Your task to perform on an android device: Open Youtube and go to the subscriptions tab Image 0: 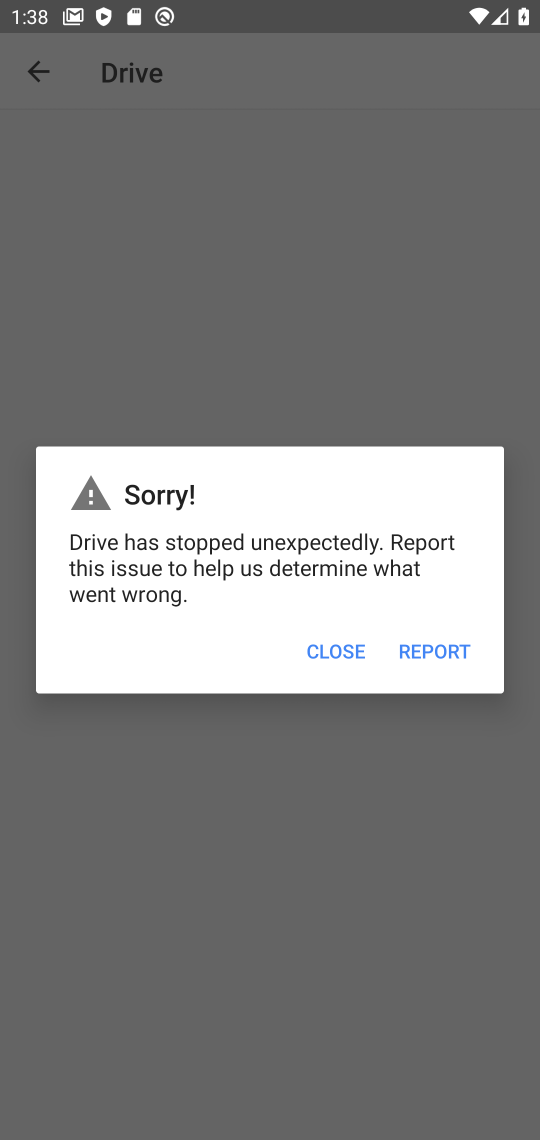
Step 0: press home button
Your task to perform on an android device: Open Youtube and go to the subscriptions tab Image 1: 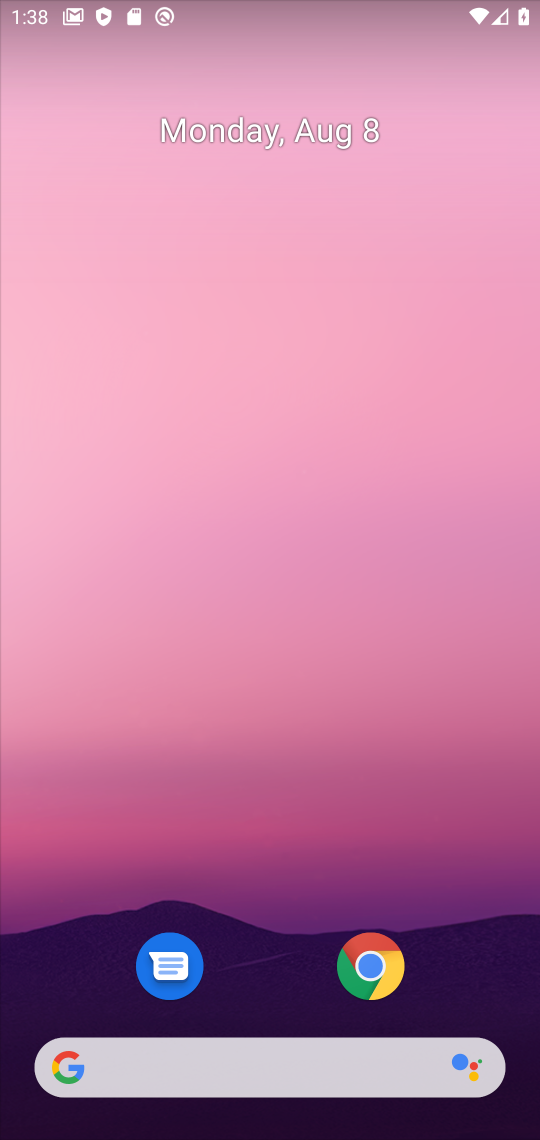
Step 1: drag from (463, 934) to (308, 147)
Your task to perform on an android device: Open Youtube and go to the subscriptions tab Image 2: 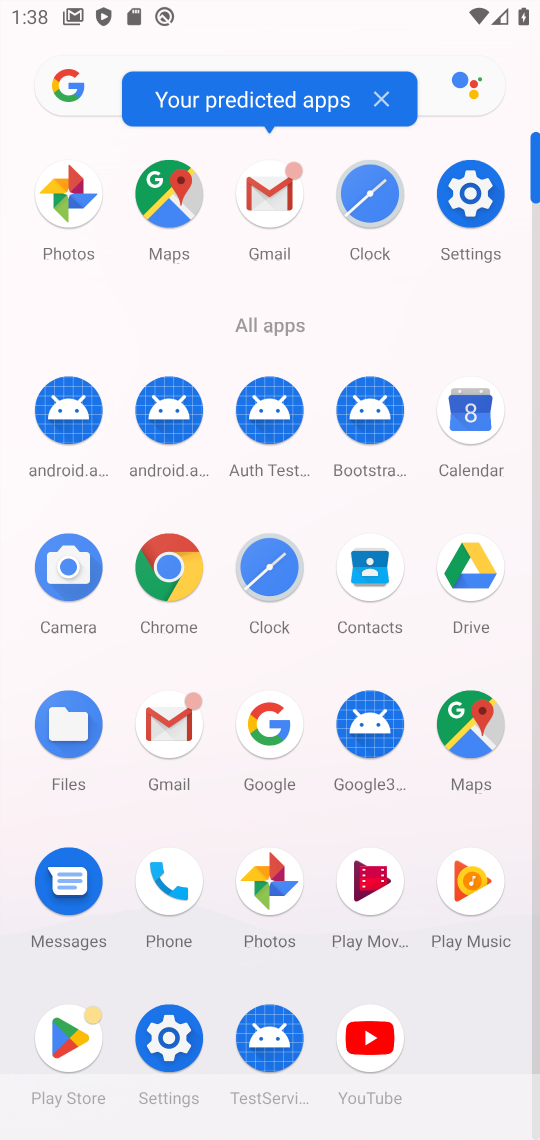
Step 2: click (361, 1035)
Your task to perform on an android device: Open Youtube and go to the subscriptions tab Image 3: 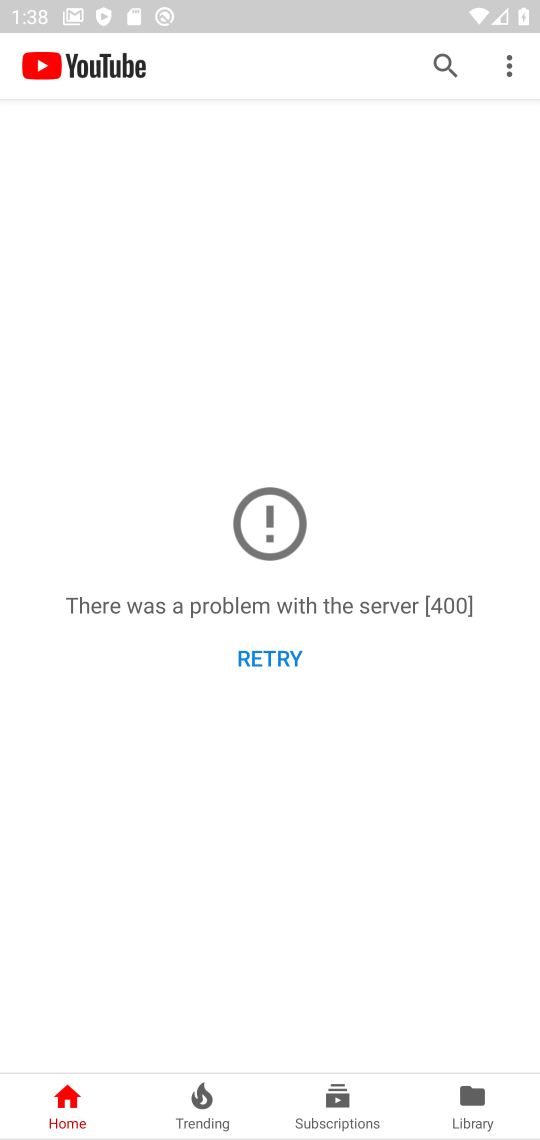
Step 3: click (345, 1096)
Your task to perform on an android device: Open Youtube and go to the subscriptions tab Image 4: 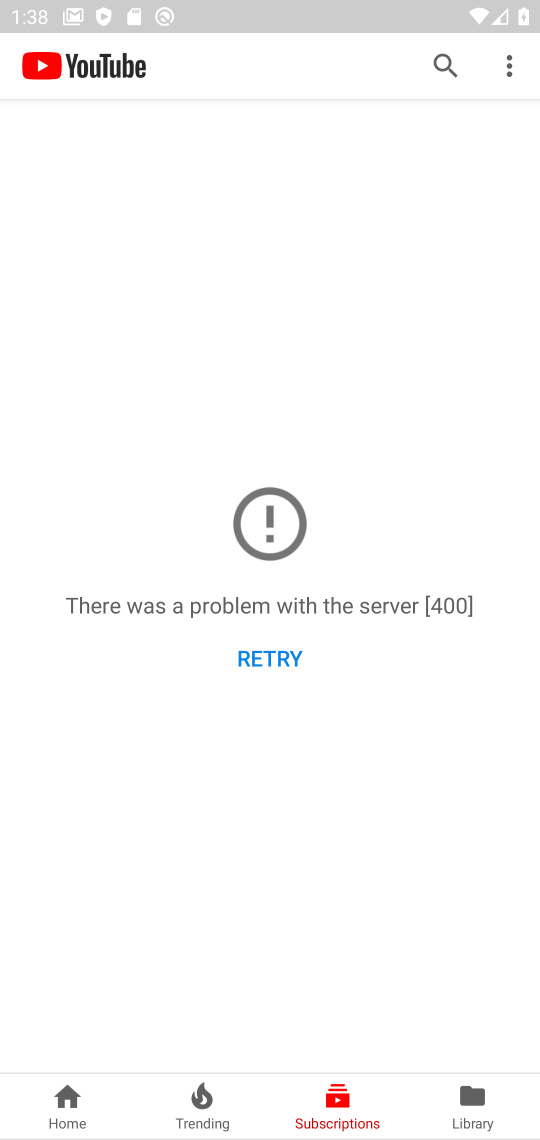
Step 4: task complete